Your task to perform on an android device: turn on improve location accuracy Image 0: 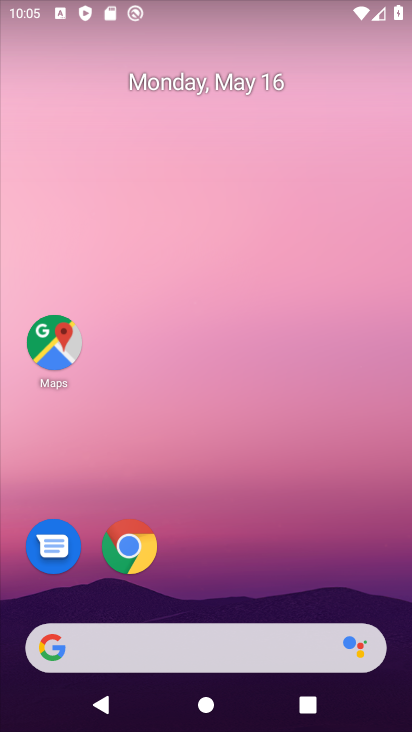
Step 0: drag from (185, 609) to (280, 192)
Your task to perform on an android device: turn on improve location accuracy Image 1: 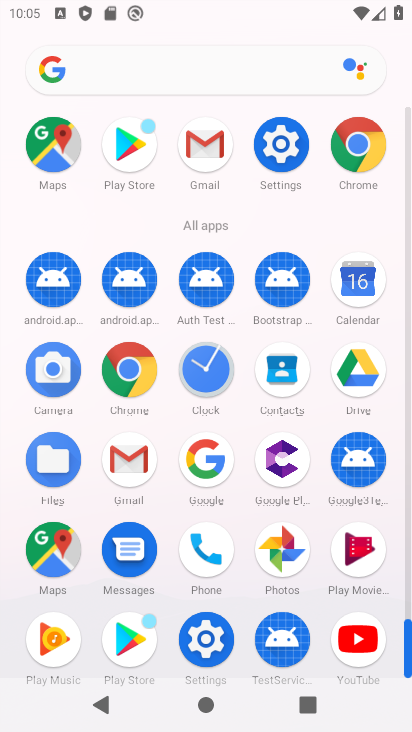
Step 1: click (281, 157)
Your task to perform on an android device: turn on improve location accuracy Image 2: 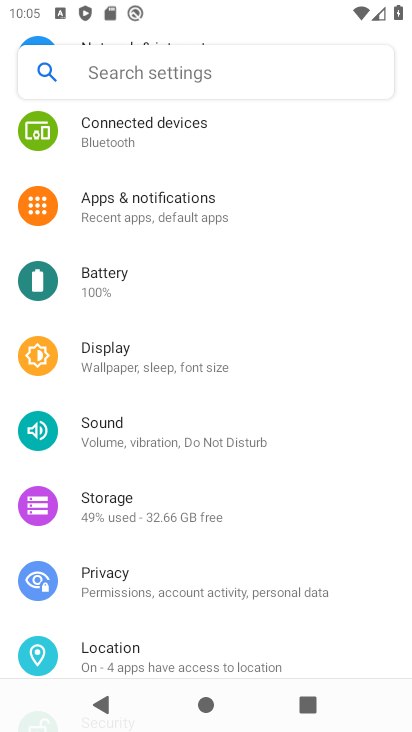
Step 2: click (131, 655)
Your task to perform on an android device: turn on improve location accuracy Image 3: 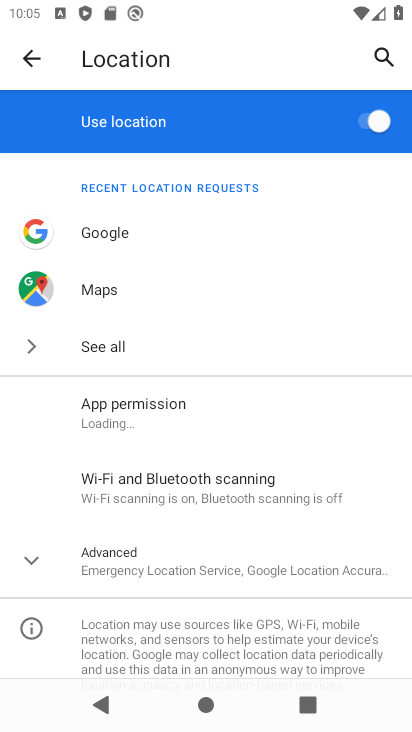
Step 3: click (121, 579)
Your task to perform on an android device: turn on improve location accuracy Image 4: 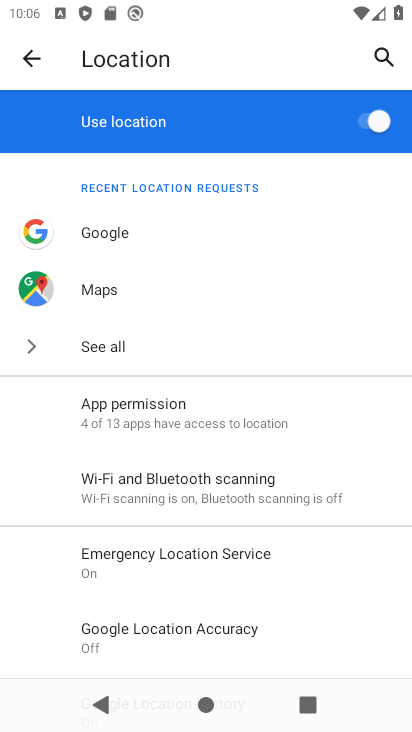
Step 4: click (136, 643)
Your task to perform on an android device: turn on improve location accuracy Image 5: 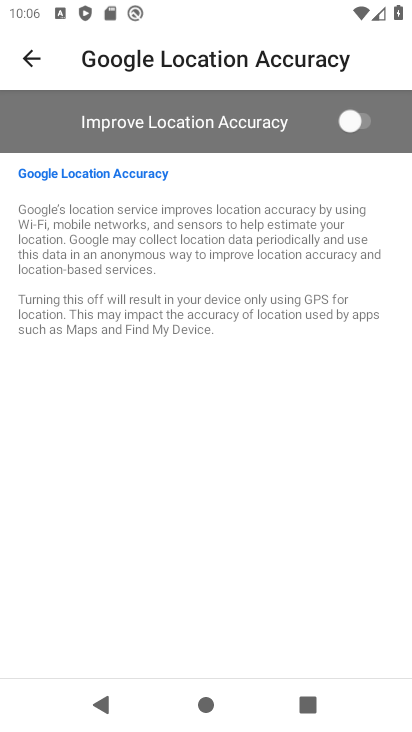
Step 5: click (363, 116)
Your task to perform on an android device: turn on improve location accuracy Image 6: 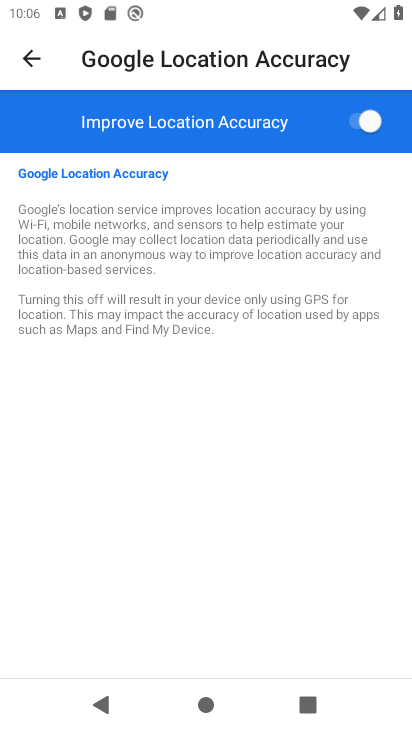
Step 6: task complete